Your task to perform on an android device: open chrome privacy settings Image 0: 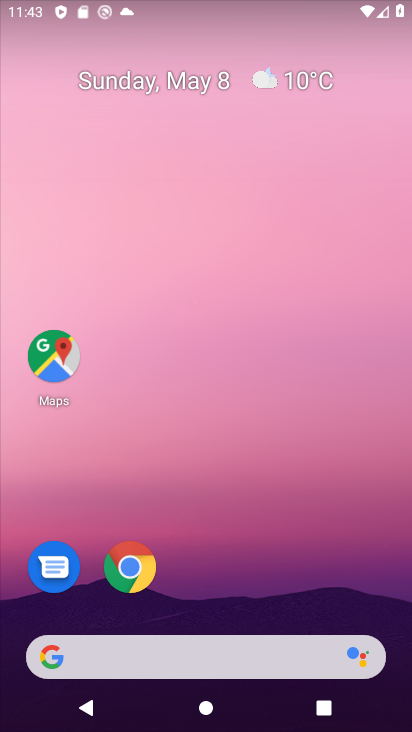
Step 0: drag from (230, 600) to (220, 89)
Your task to perform on an android device: open chrome privacy settings Image 1: 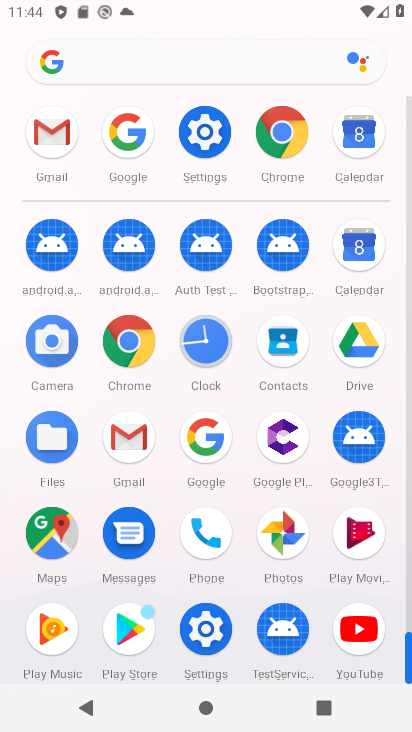
Step 1: click (138, 361)
Your task to perform on an android device: open chrome privacy settings Image 2: 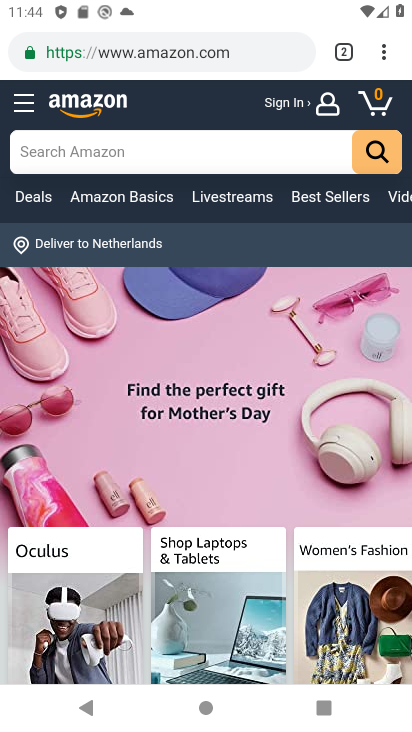
Step 2: click (387, 67)
Your task to perform on an android device: open chrome privacy settings Image 3: 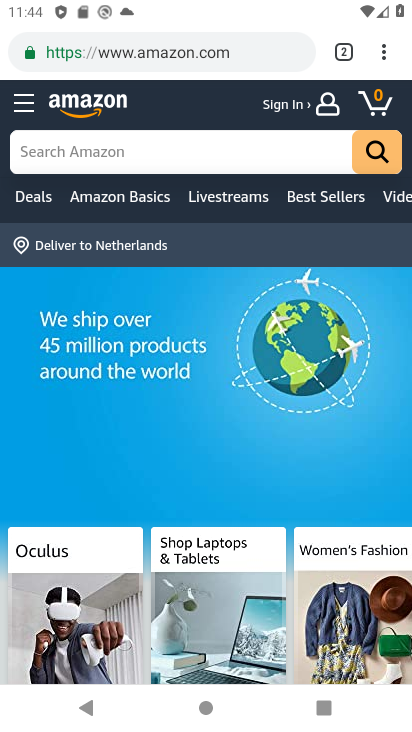
Step 3: click (385, 61)
Your task to perform on an android device: open chrome privacy settings Image 4: 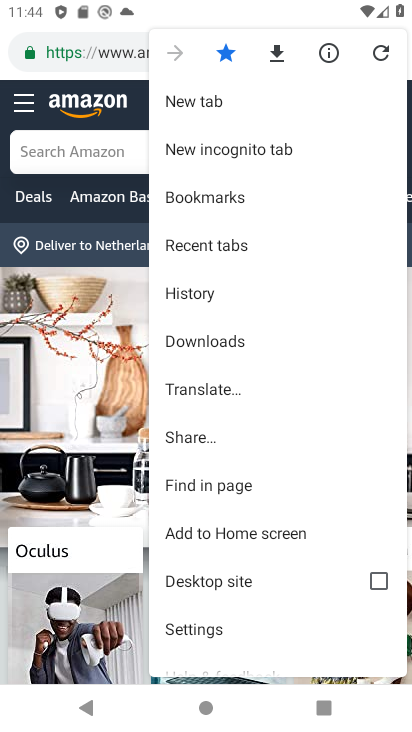
Step 4: drag from (280, 424) to (283, 237)
Your task to perform on an android device: open chrome privacy settings Image 5: 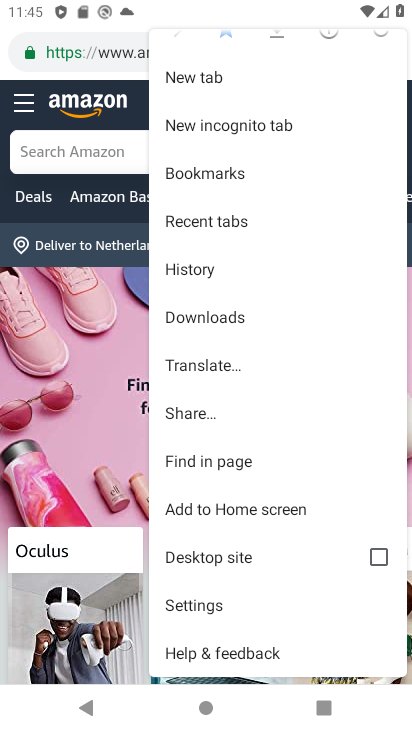
Step 5: drag from (251, 540) to (284, 253)
Your task to perform on an android device: open chrome privacy settings Image 6: 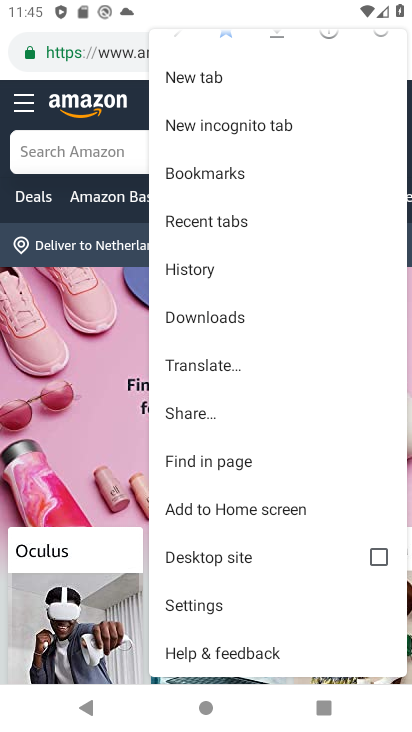
Step 6: click (230, 605)
Your task to perform on an android device: open chrome privacy settings Image 7: 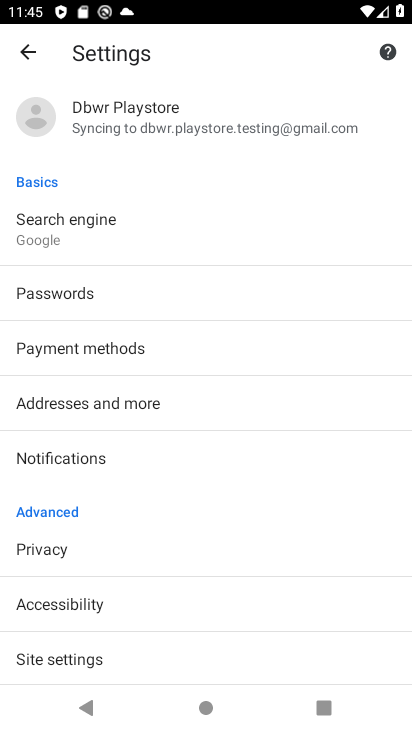
Step 7: click (58, 544)
Your task to perform on an android device: open chrome privacy settings Image 8: 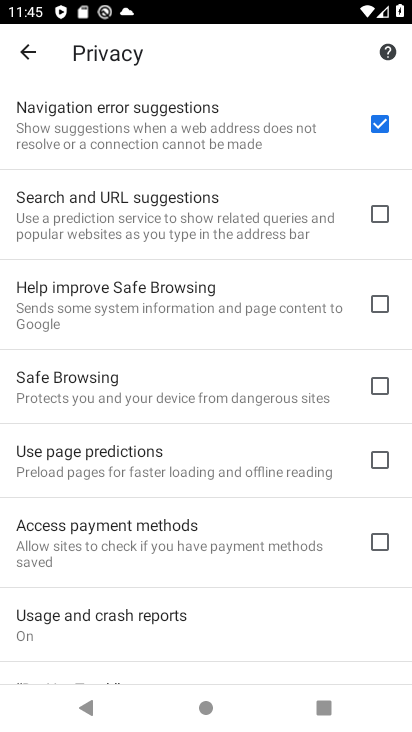
Step 8: task complete